Your task to perform on an android device: Open calendar and show me the second week of next month Image 0: 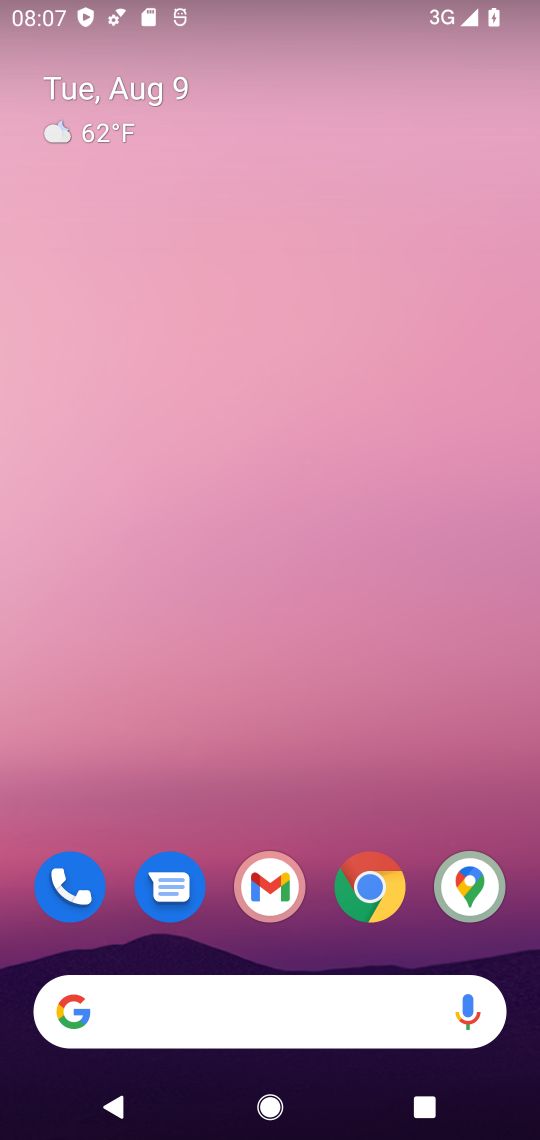
Step 0: drag from (300, 814) to (339, 0)
Your task to perform on an android device: Open calendar and show me the second week of next month Image 1: 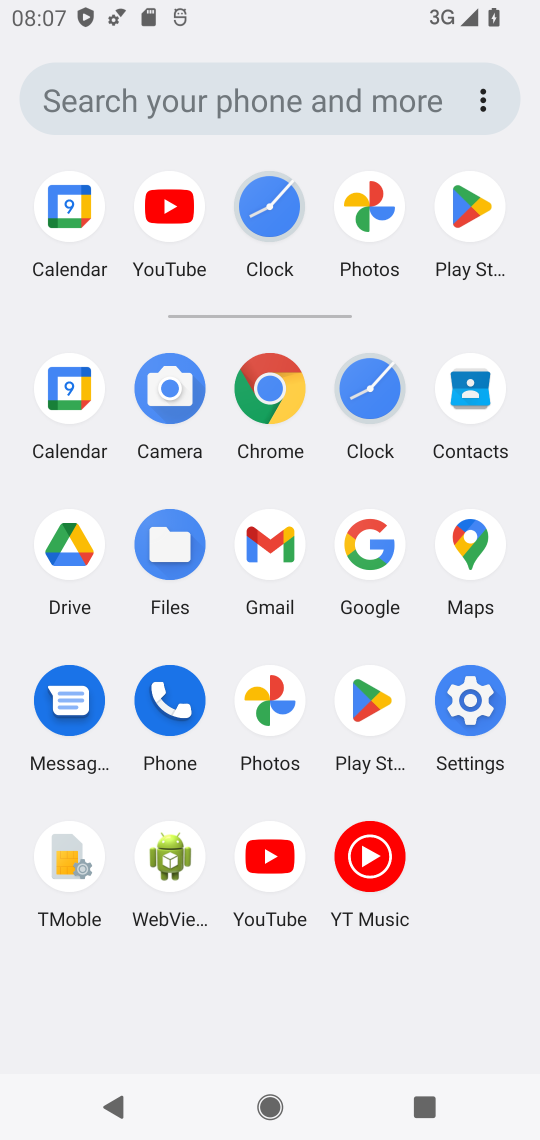
Step 1: click (73, 209)
Your task to perform on an android device: Open calendar and show me the second week of next month Image 2: 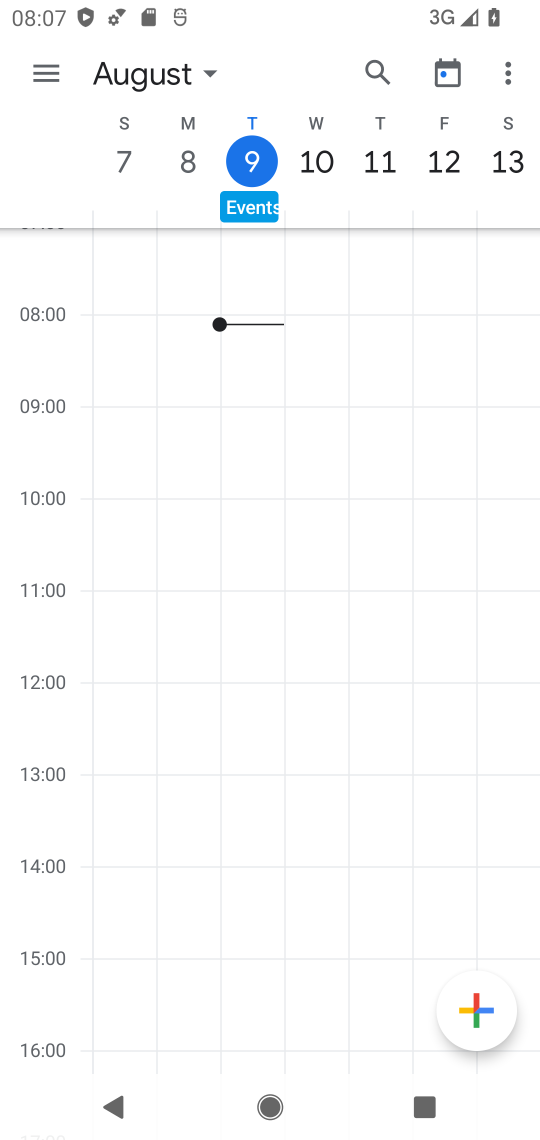
Step 2: task complete